Your task to perform on an android device: Go to location settings Image 0: 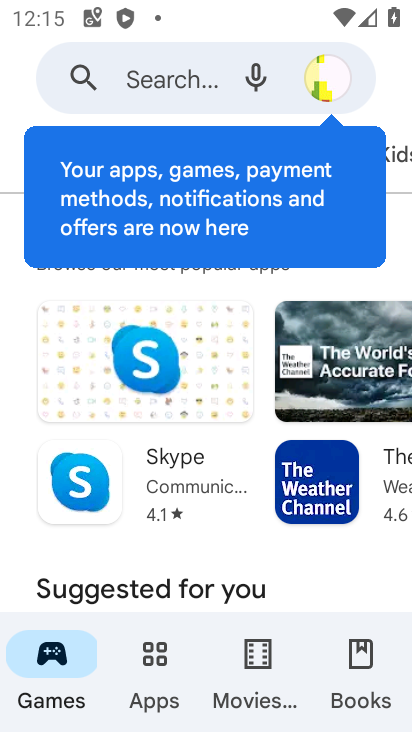
Step 0: press home button
Your task to perform on an android device: Go to location settings Image 1: 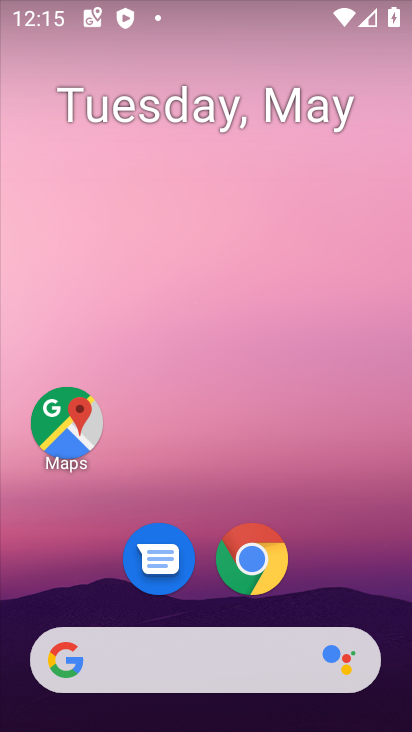
Step 1: drag from (344, 544) to (318, 91)
Your task to perform on an android device: Go to location settings Image 2: 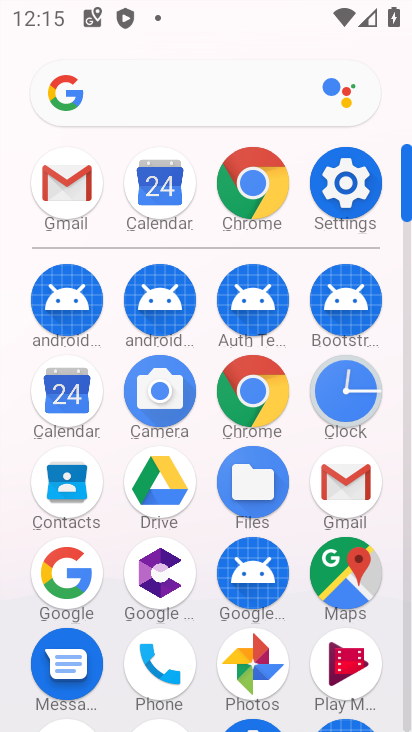
Step 2: click (350, 197)
Your task to perform on an android device: Go to location settings Image 3: 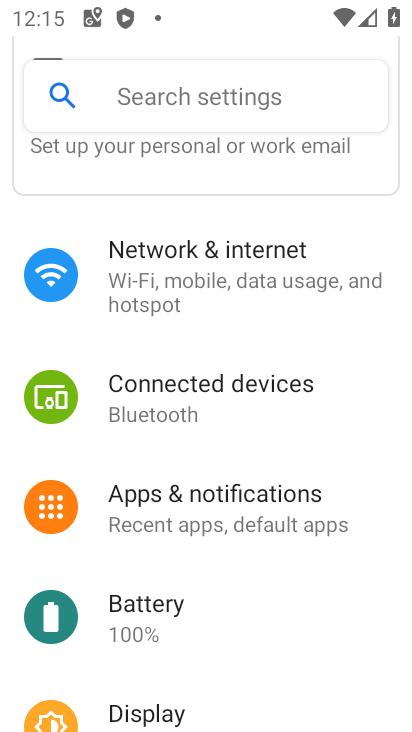
Step 3: drag from (219, 588) to (237, 322)
Your task to perform on an android device: Go to location settings Image 4: 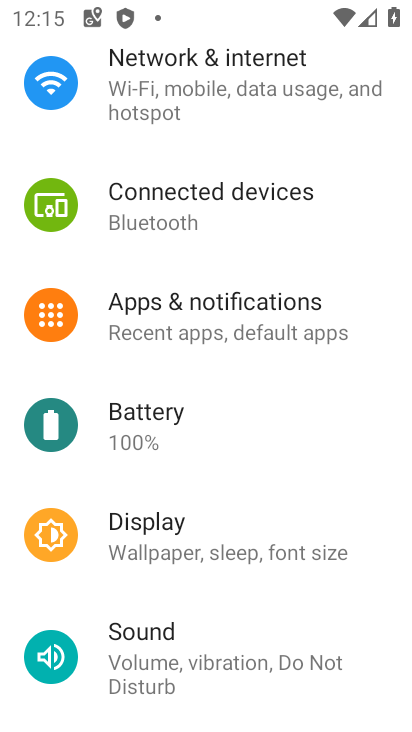
Step 4: drag from (203, 655) to (239, 131)
Your task to perform on an android device: Go to location settings Image 5: 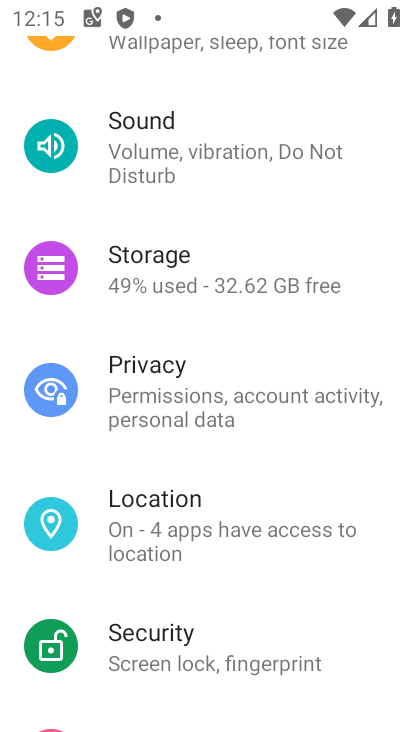
Step 5: click (296, 519)
Your task to perform on an android device: Go to location settings Image 6: 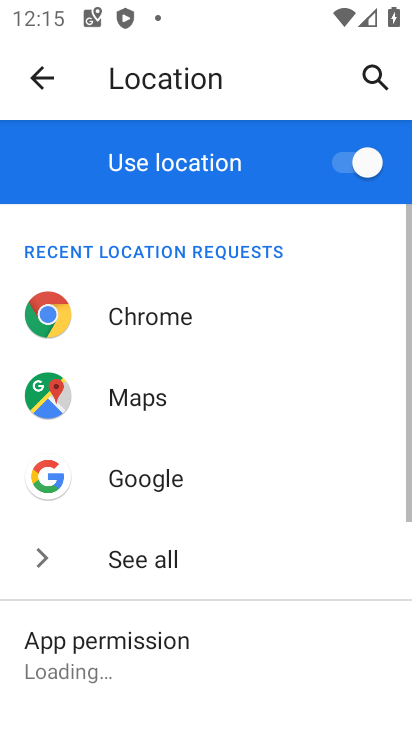
Step 6: task complete